Your task to perform on an android device: check out phone information Image 0: 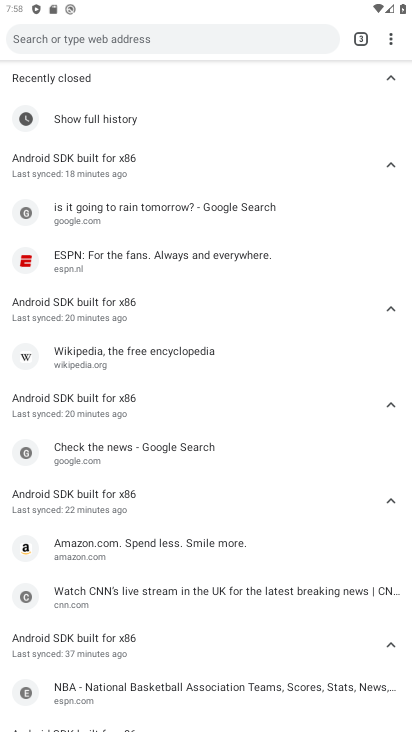
Step 0: press home button
Your task to perform on an android device: check out phone information Image 1: 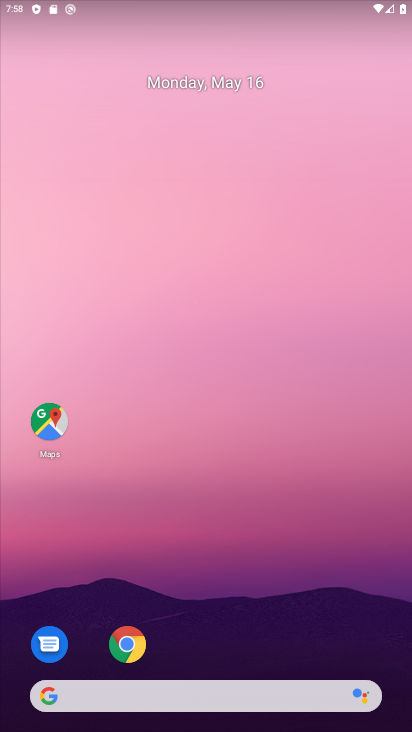
Step 1: drag from (255, 728) to (280, 103)
Your task to perform on an android device: check out phone information Image 2: 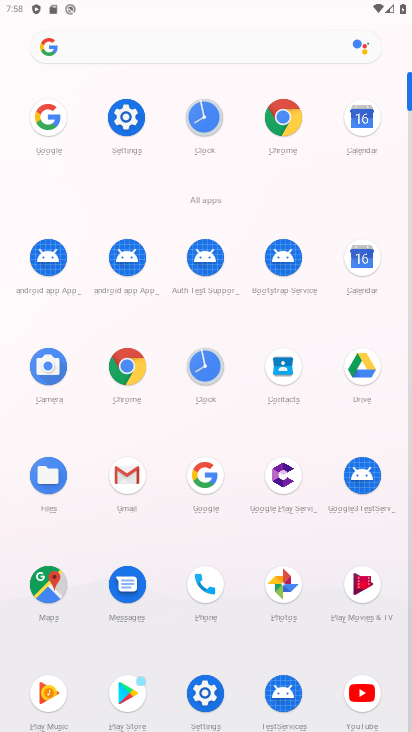
Step 2: click (216, 702)
Your task to perform on an android device: check out phone information Image 3: 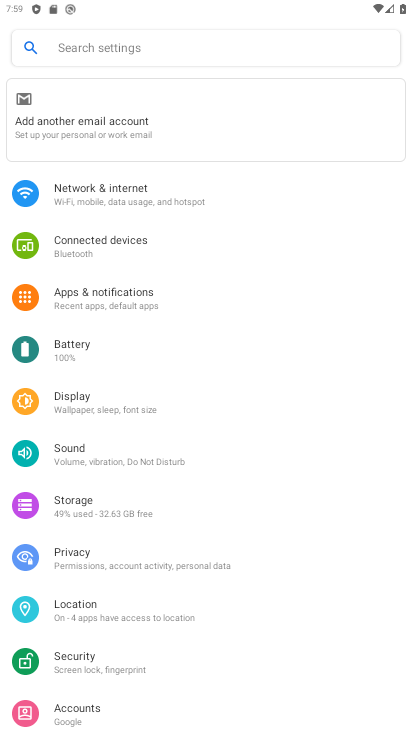
Step 3: drag from (242, 690) to (195, 151)
Your task to perform on an android device: check out phone information Image 4: 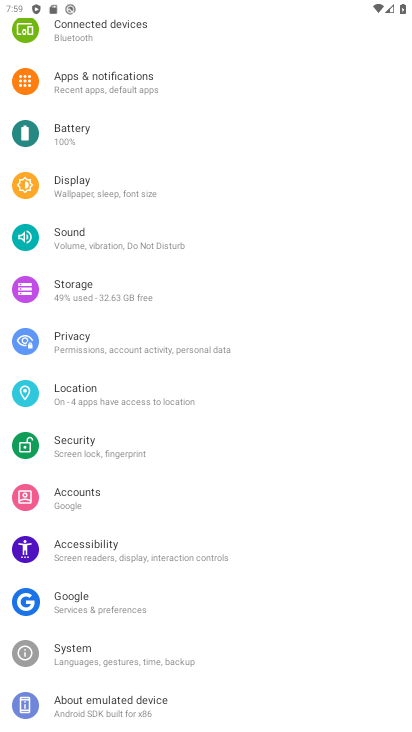
Step 4: click (149, 706)
Your task to perform on an android device: check out phone information Image 5: 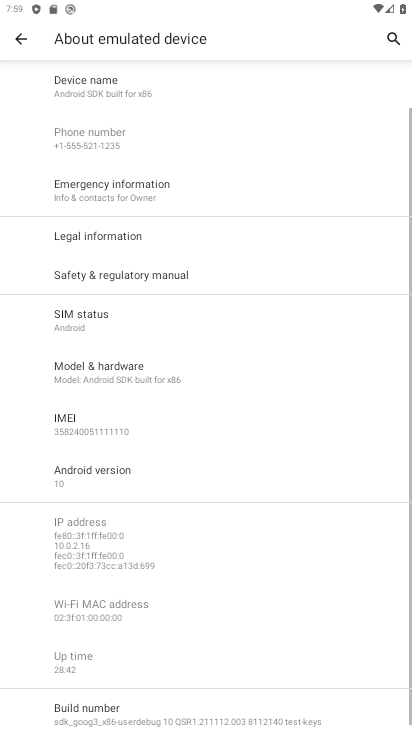
Step 5: task complete